Your task to perform on an android device: open chrome and create a bookmark for the current page Image 0: 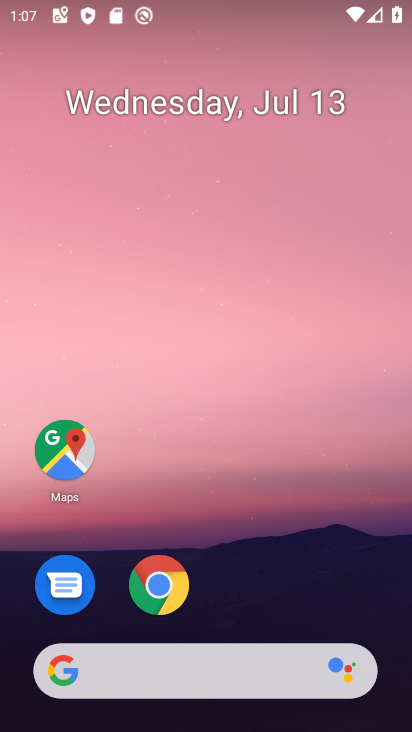
Step 0: press home button
Your task to perform on an android device: open chrome and create a bookmark for the current page Image 1: 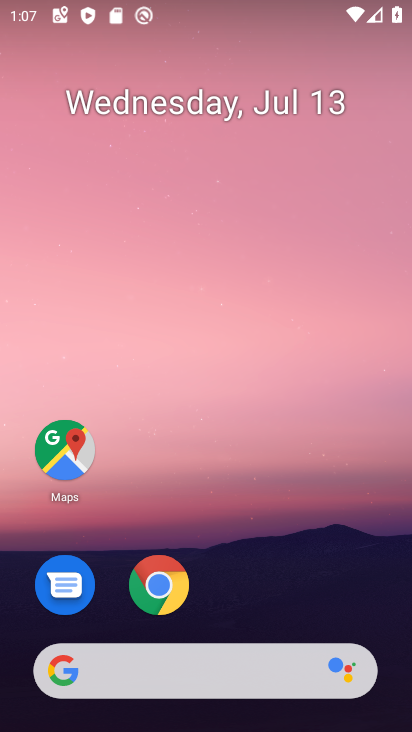
Step 1: click (158, 592)
Your task to perform on an android device: open chrome and create a bookmark for the current page Image 2: 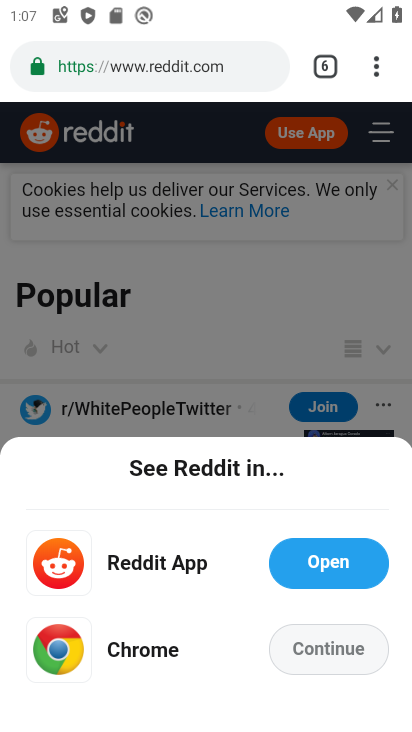
Step 2: click (373, 82)
Your task to perform on an android device: open chrome and create a bookmark for the current page Image 3: 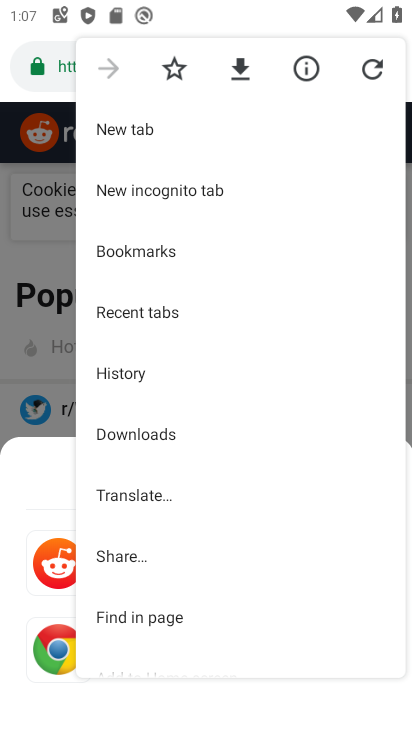
Step 3: click (173, 70)
Your task to perform on an android device: open chrome and create a bookmark for the current page Image 4: 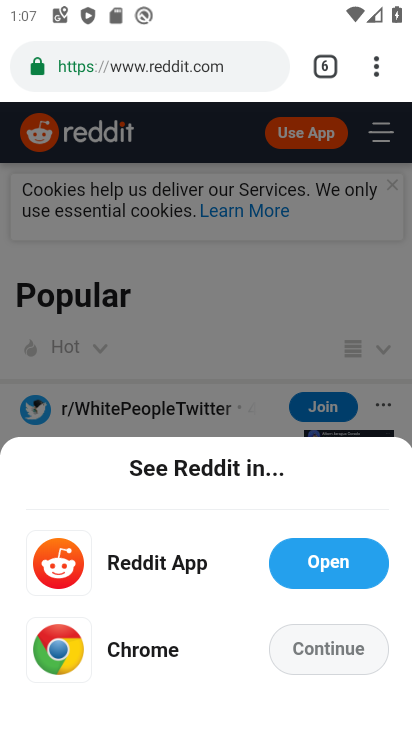
Step 4: task complete